Your task to perform on an android device: change notification settings in the gmail app Image 0: 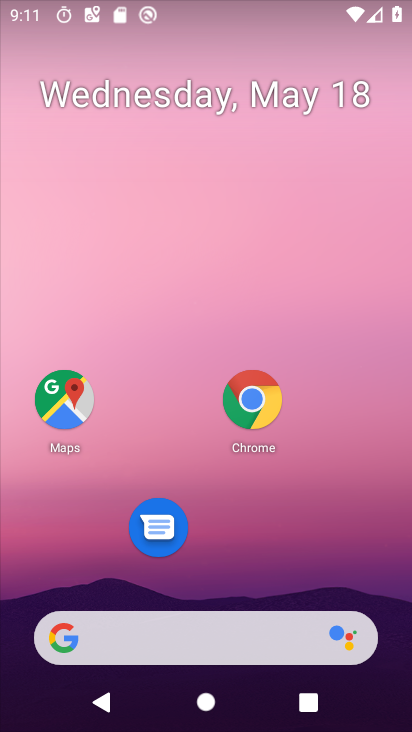
Step 0: drag from (267, 563) to (230, 215)
Your task to perform on an android device: change notification settings in the gmail app Image 1: 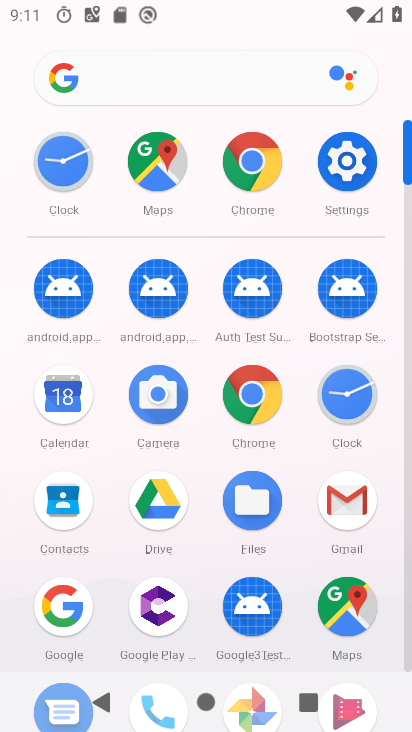
Step 1: click (338, 527)
Your task to perform on an android device: change notification settings in the gmail app Image 2: 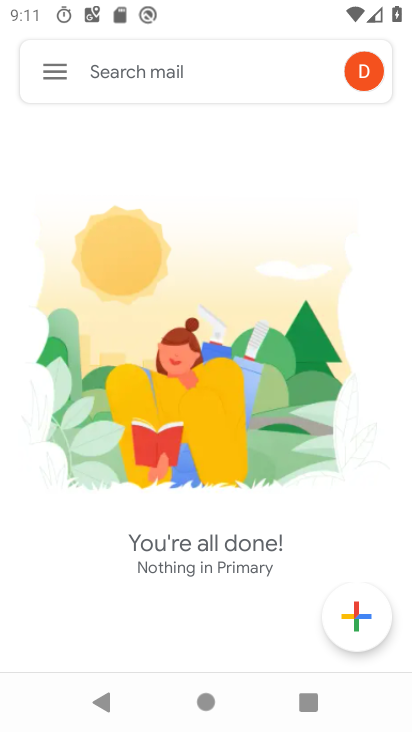
Step 2: click (49, 86)
Your task to perform on an android device: change notification settings in the gmail app Image 3: 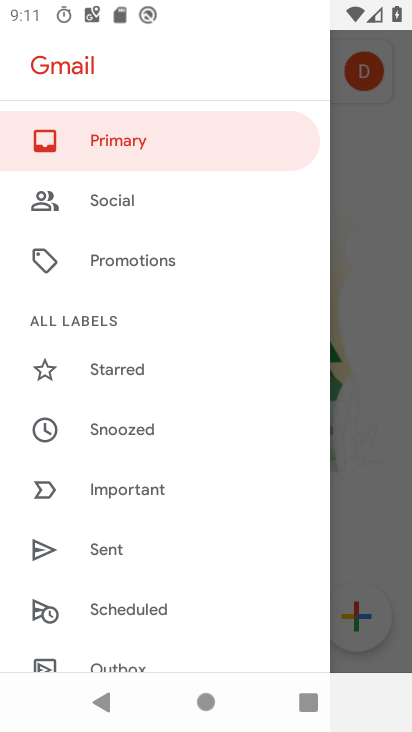
Step 3: drag from (127, 615) to (159, 328)
Your task to perform on an android device: change notification settings in the gmail app Image 4: 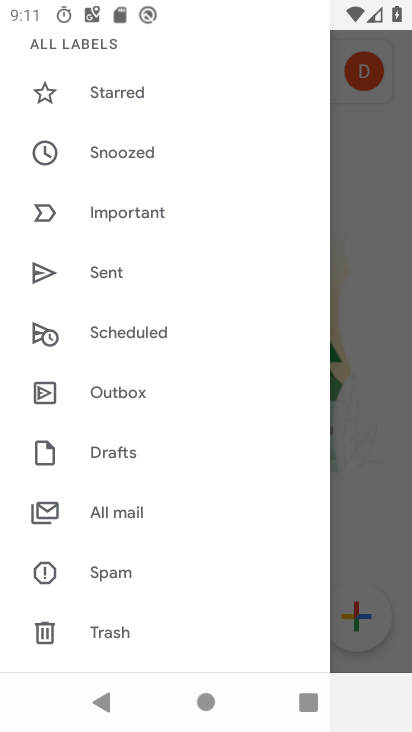
Step 4: drag from (131, 615) to (154, 385)
Your task to perform on an android device: change notification settings in the gmail app Image 5: 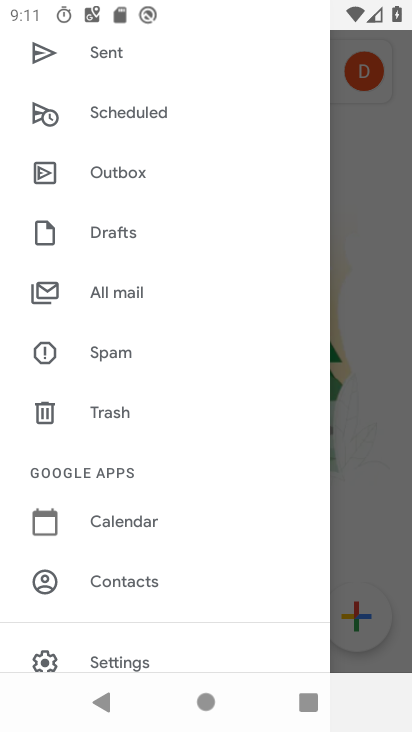
Step 5: click (133, 661)
Your task to perform on an android device: change notification settings in the gmail app Image 6: 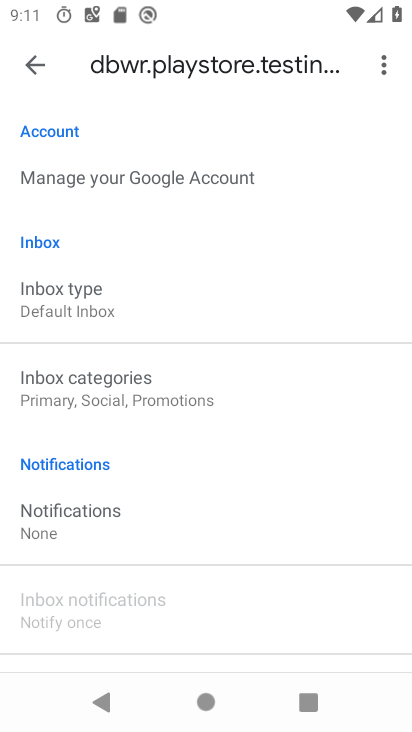
Step 6: click (67, 532)
Your task to perform on an android device: change notification settings in the gmail app Image 7: 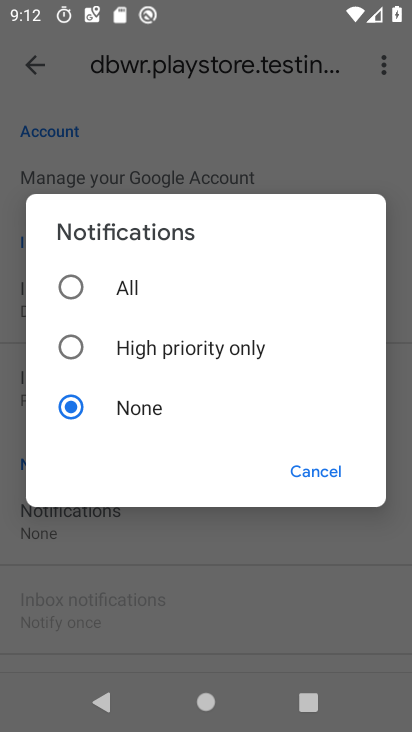
Step 7: click (72, 298)
Your task to perform on an android device: change notification settings in the gmail app Image 8: 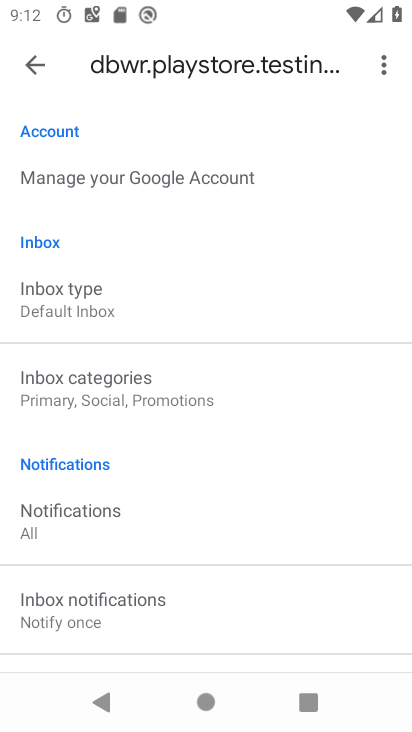
Step 8: task complete